Your task to perform on an android device: Open my contact list Image 0: 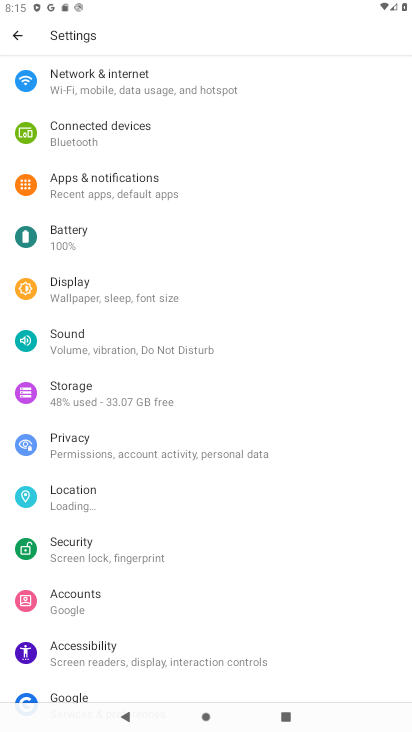
Step 0: press home button
Your task to perform on an android device: Open my contact list Image 1: 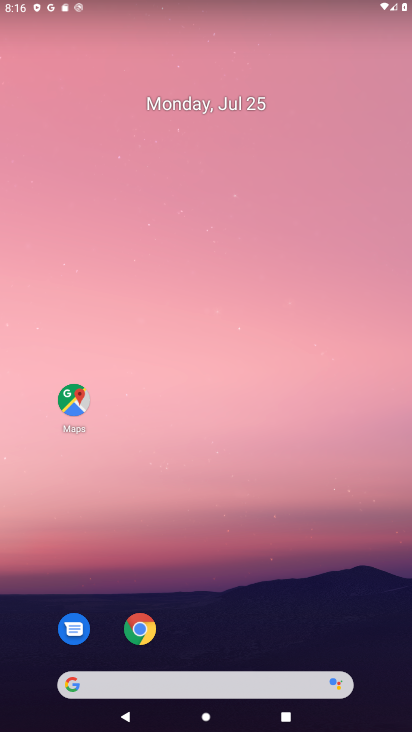
Step 1: drag from (156, 103) to (239, 60)
Your task to perform on an android device: Open my contact list Image 2: 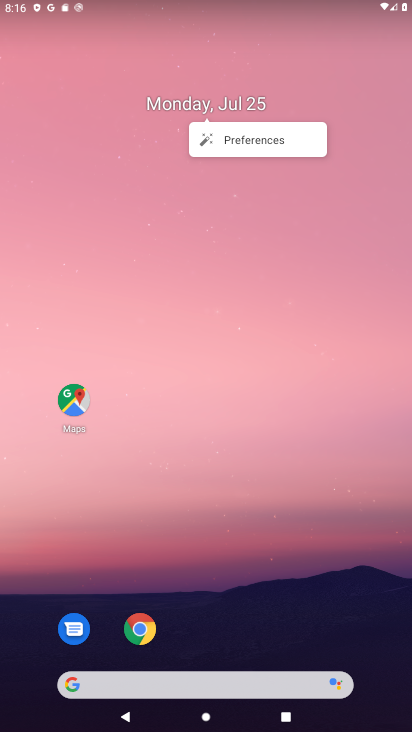
Step 2: click (269, 573)
Your task to perform on an android device: Open my contact list Image 3: 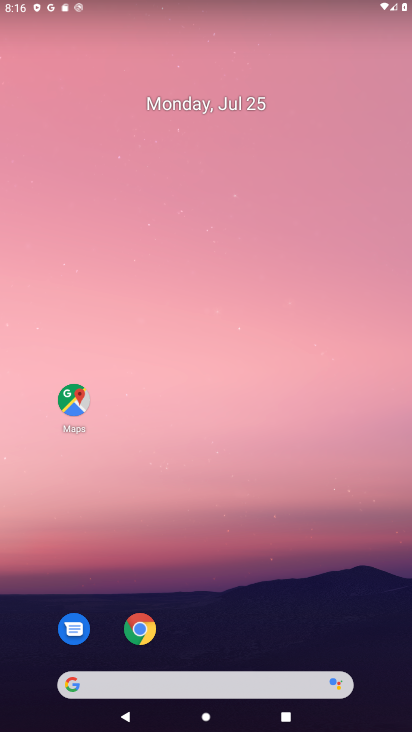
Step 3: drag from (269, 573) to (288, 42)
Your task to perform on an android device: Open my contact list Image 4: 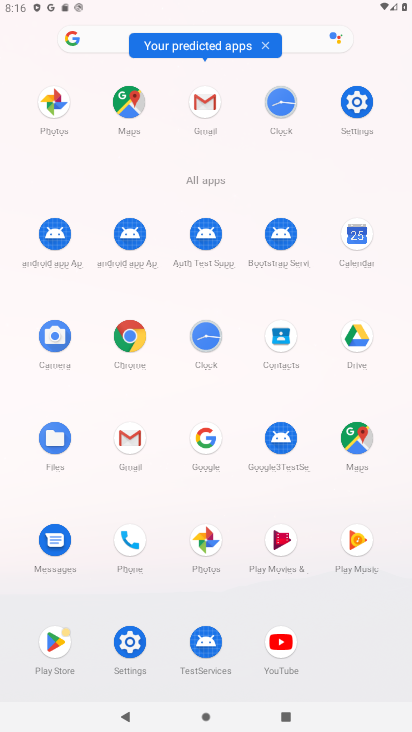
Step 4: click (278, 353)
Your task to perform on an android device: Open my contact list Image 5: 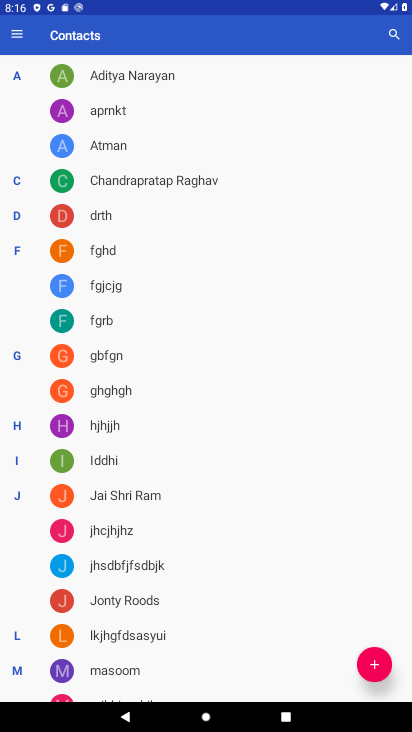
Step 5: task complete